Your task to perform on an android device: toggle show notifications on the lock screen Image 0: 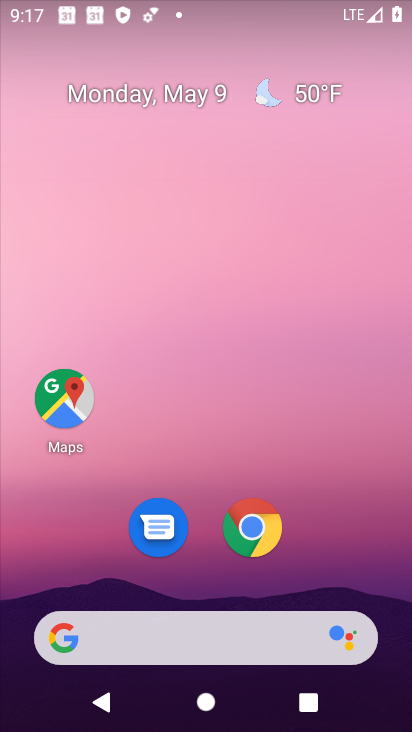
Step 0: drag from (197, 585) to (352, 3)
Your task to perform on an android device: toggle show notifications on the lock screen Image 1: 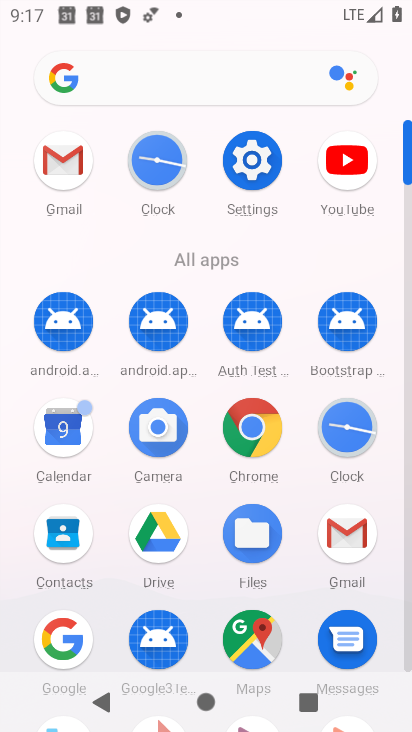
Step 1: click (252, 203)
Your task to perform on an android device: toggle show notifications on the lock screen Image 2: 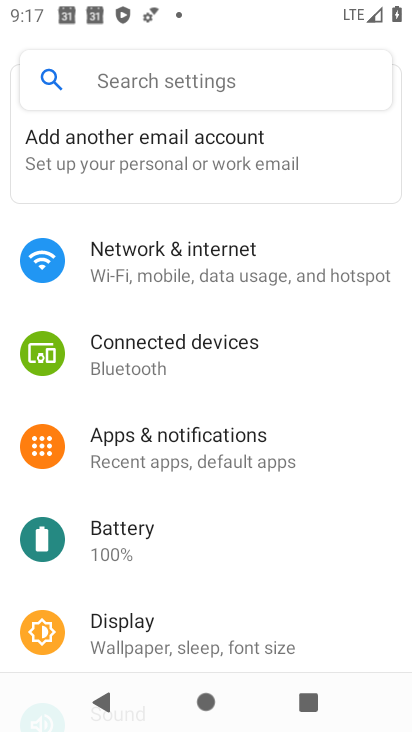
Step 2: click (224, 450)
Your task to perform on an android device: toggle show notifications on the lock screen Image 3: 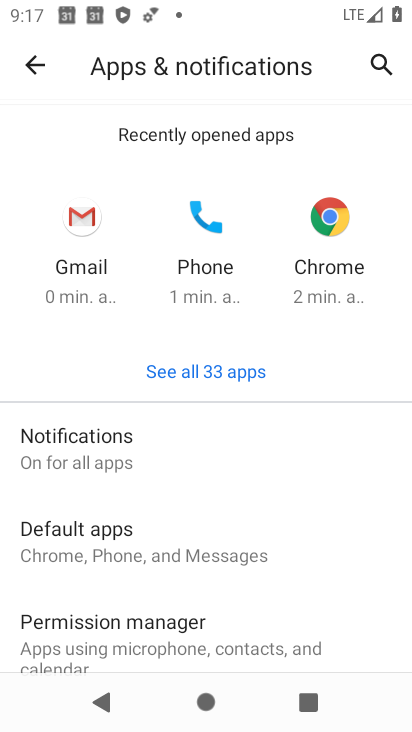
Step 3: click (157, 457)
Your task to perform on an android device: toggle show notifications on the lock screen Image 4: 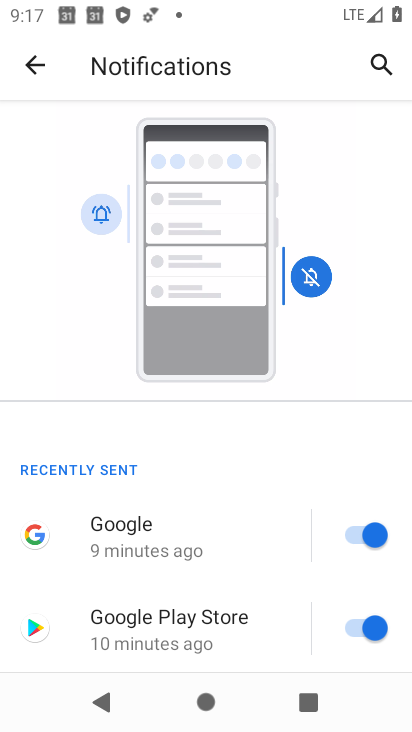
Step 4: drag from (150, 567) to (193, 399)
Your task to perform on an android device: toggle show notifications on the lock screen Image 5: 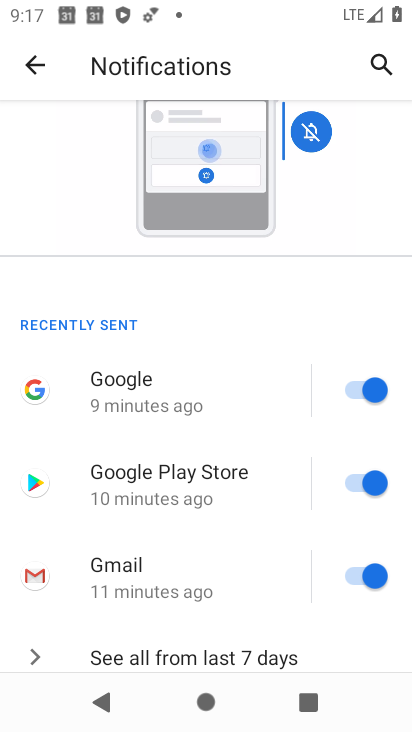
Step 5: drag from (175, 636) to (245, 273)
Your task to perform on an android device: toggle show notifications on the lock screen Image 6: 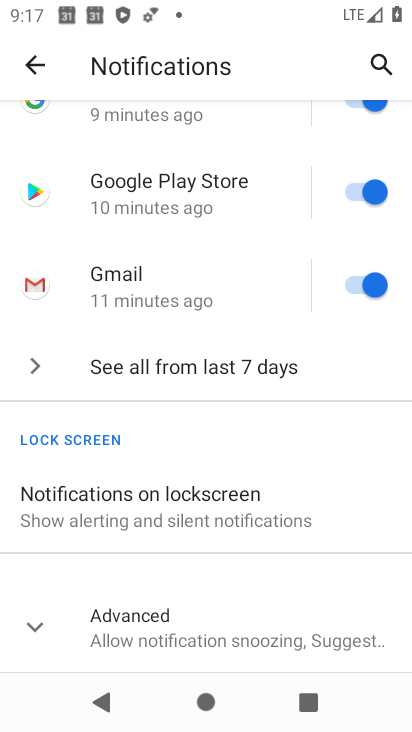
Step 6: click (204, 507)
Your task to perform on an android device: toggle show notifications on the lock screen Image 7: 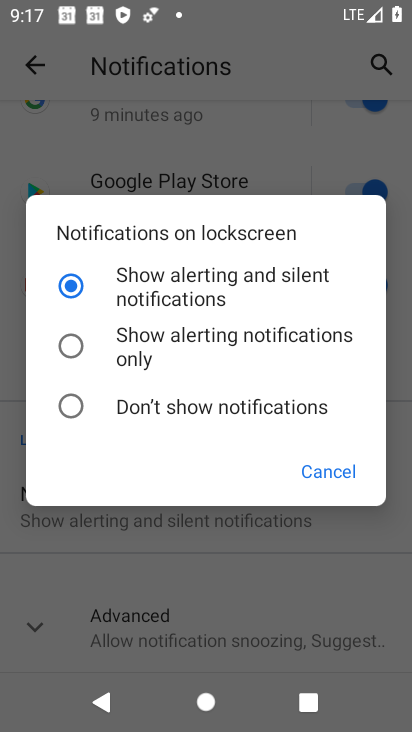
Step 7: click (173, 409)
Your task to perform on an android device: toggle show notifications on the lock screen Image 8: 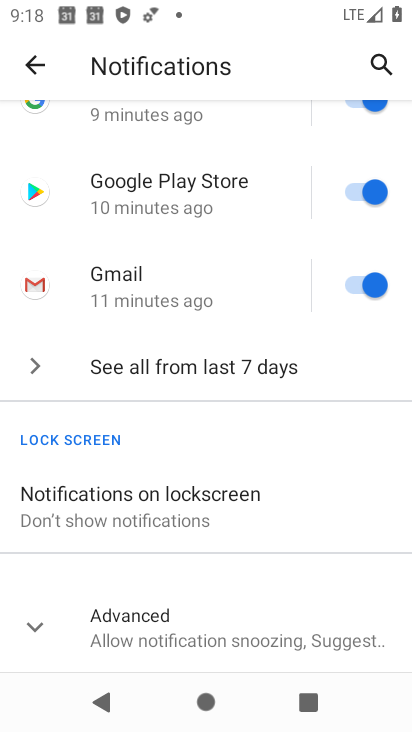
Step 8: task complete